Your task to perform on an android device: turn off improve location accuracy Image 0: 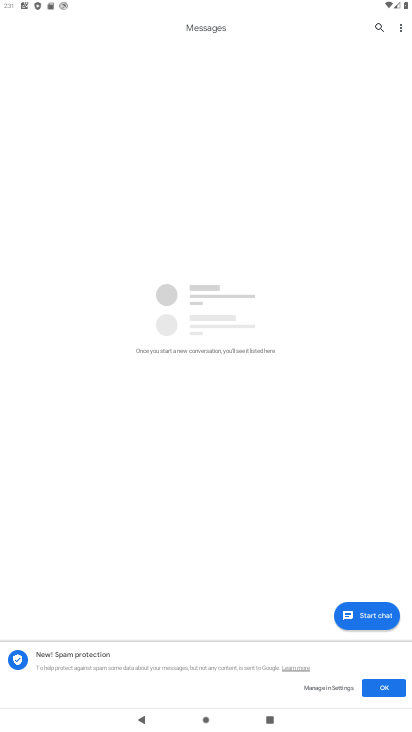
Step 0: press home button
Your task to perform on an android device: turn off improve location accuracy Image 1: 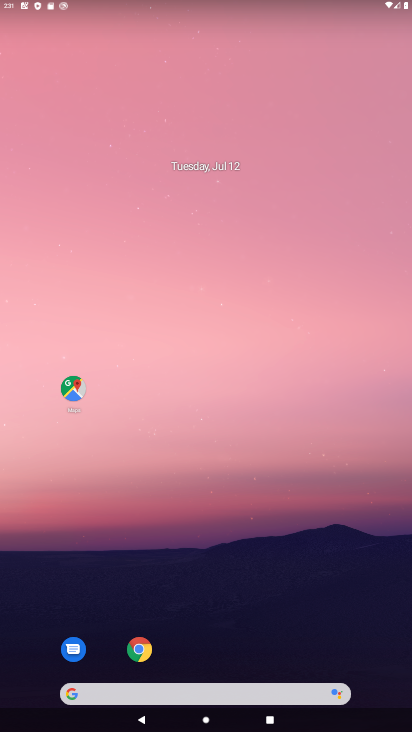
Step 1: drag from (280, 652) to (229, 283)
Your task to perform on an android device: turn off improve location accuracy Image 2: 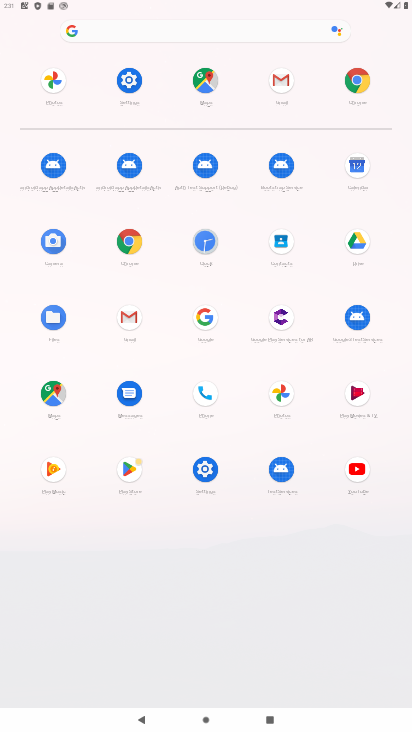
Step 2: click (134, 104)
Your task to perform on an android device: turn off improve location accuracy Image 3: 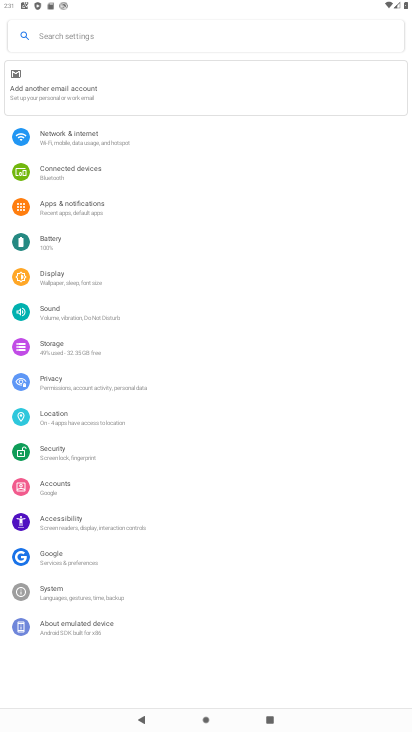
Step 3: click (112, 283)
Your task to perform on an android device: turn off improve location accuracy Image 4: 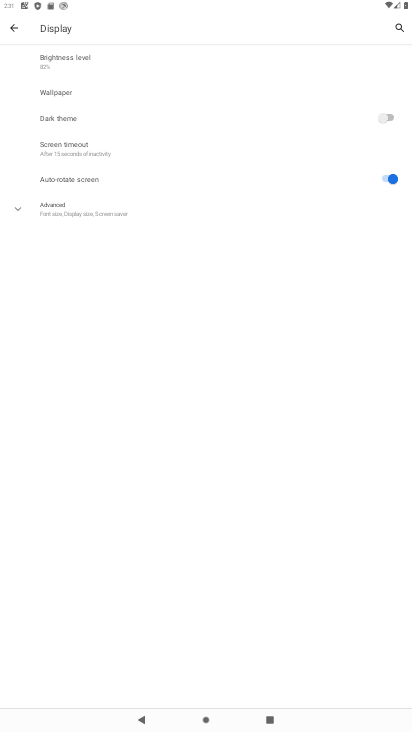
Step 4: click (84, 207)
Your task to perform on an android device: turn off improve location accuracy Image 5: 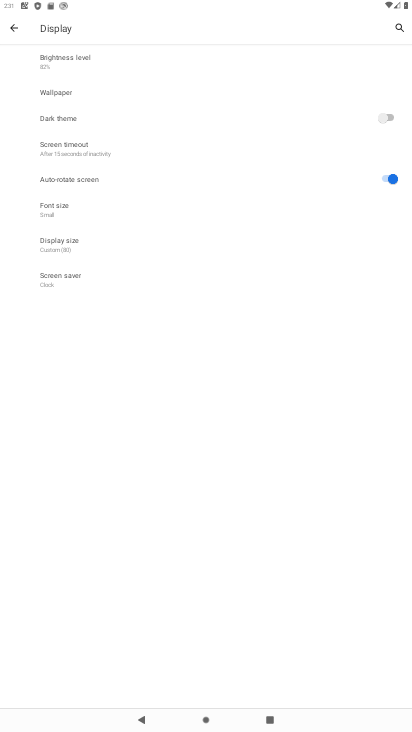
Step 5: click (84, 207)
Your task to perform on an android device: turn off improve location accuracy Image 6: 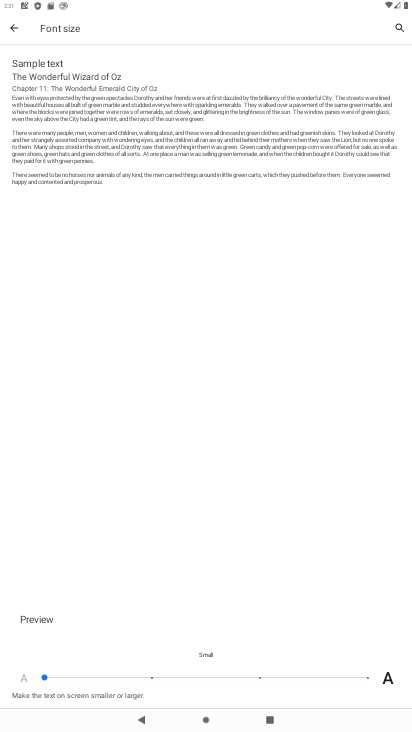
Step 6: click (362, 681)
Your task to perform on an android device: turn off improve location accuracy Image 7: 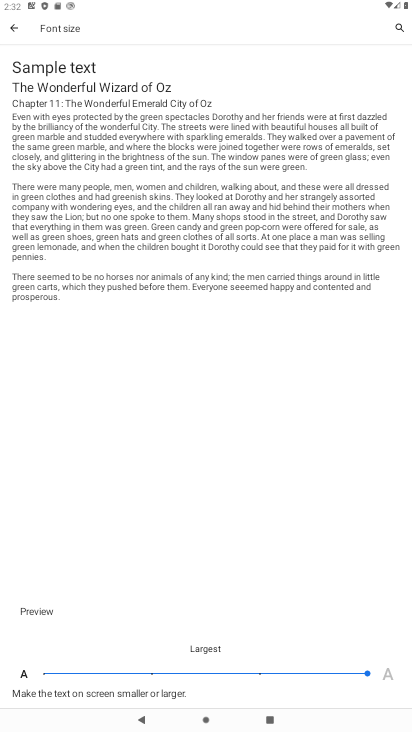
Step 7: press home button
Your task to perform on an android device: turn off improve location accuracy Image 8: 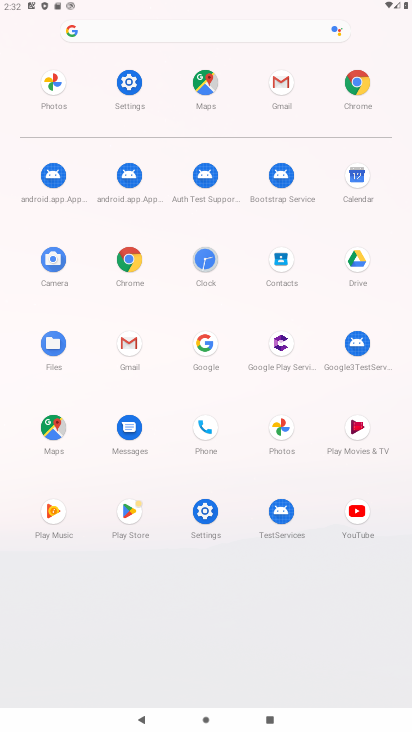
Step 8: click (204, 516)
Your task to perform on an android device: turn off improve location accuracy Image 9: 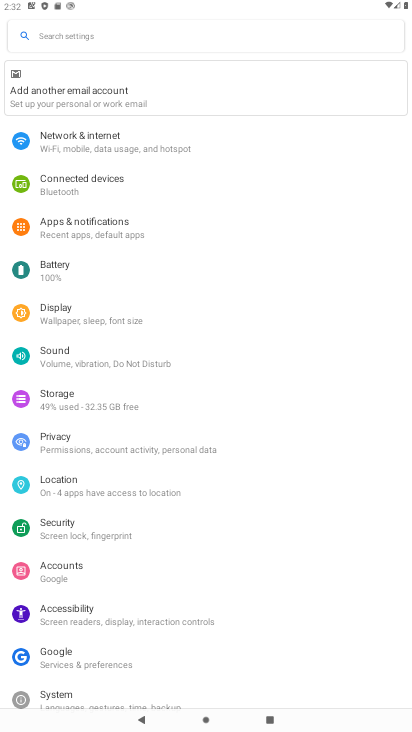
Step 9: click (151, 483)
Your task to perform on an android device: turn off improve location accuracy Image 10: 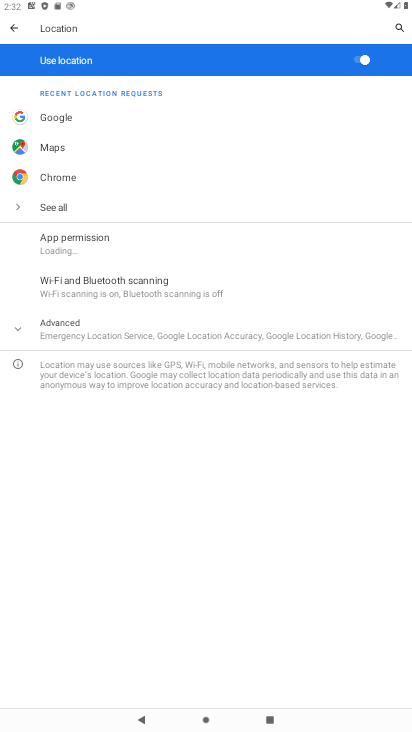
Step 10: click (163, 318)
Your task to perform on an android device: turn off improve location accuracy Image 11: 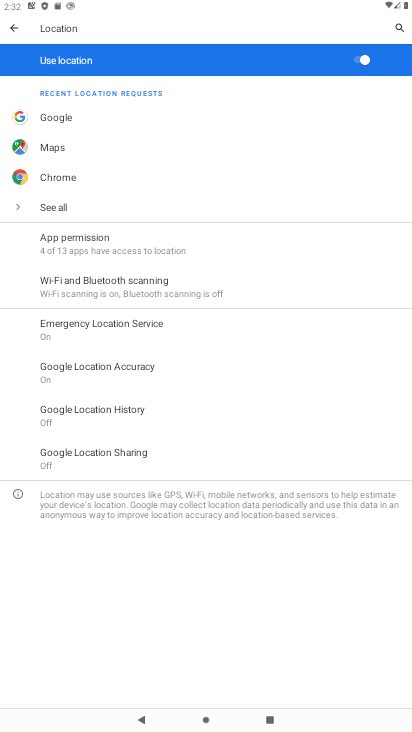
Step 11: click (163, 378)
Your task to perform on an android device: turn off improve location accuracy Image 12: 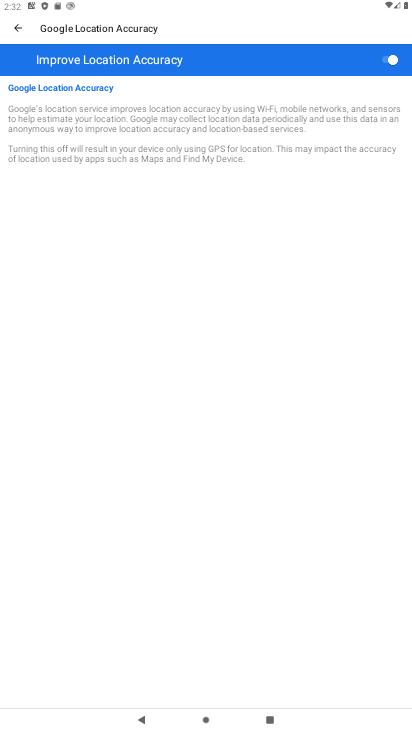
Step 12: click (367, 62)
Your task to perform on an android device: turn off improve location accuracy Image 13: 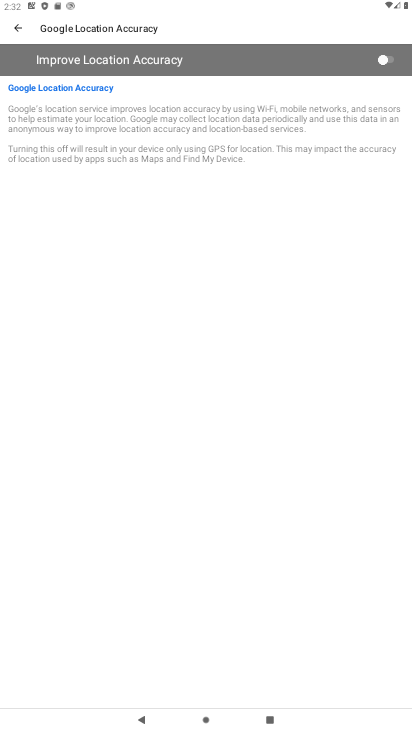
Step 13: task complete